Your task to perform on an android device: turn notification dots off Image 0: 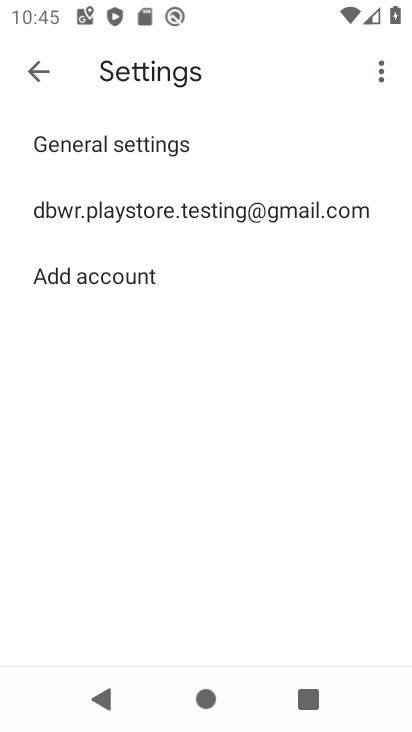
Step 0: click (197, 140)
Your task to perform on an android device: turn notification dots off Image 1: 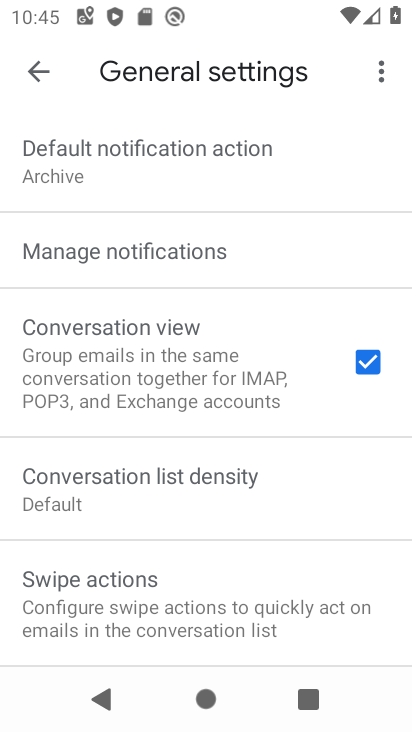
Step 1: click (243, 250)
Your task to perform on an android device: turn notification dots off Image 2: 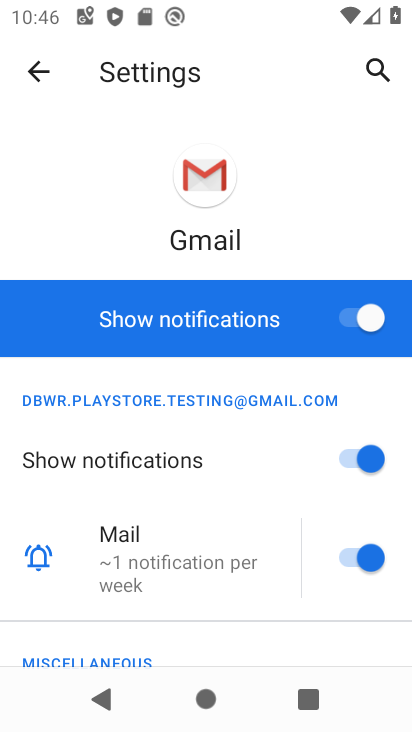
Step 2: click (348, 313)
Your task to perform on an android device: turn notification dots off Image 3: 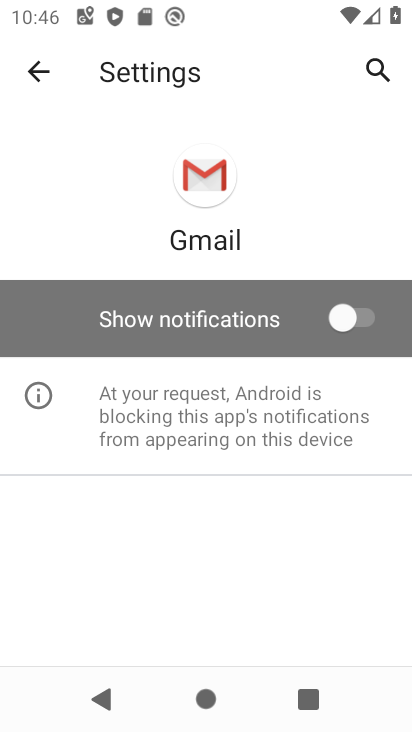
Step 3: task complete